Your task to perform on an android device: What's the weather going to be tomorrow? Image 0: 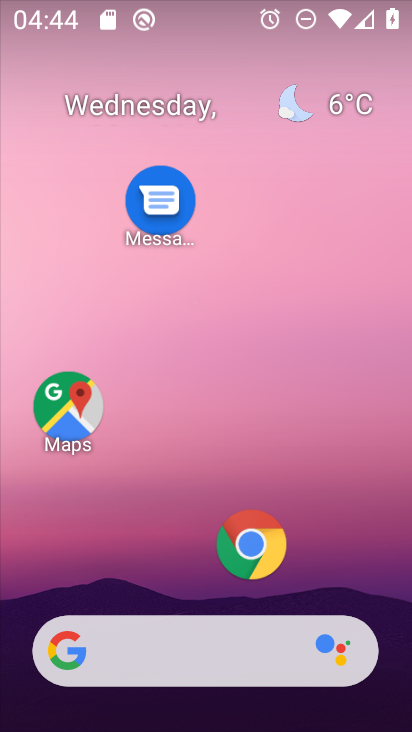
Step 0: click (152, 641)
Your task to perform on an android device: What's the weather going to be tomorrow? Image 1: 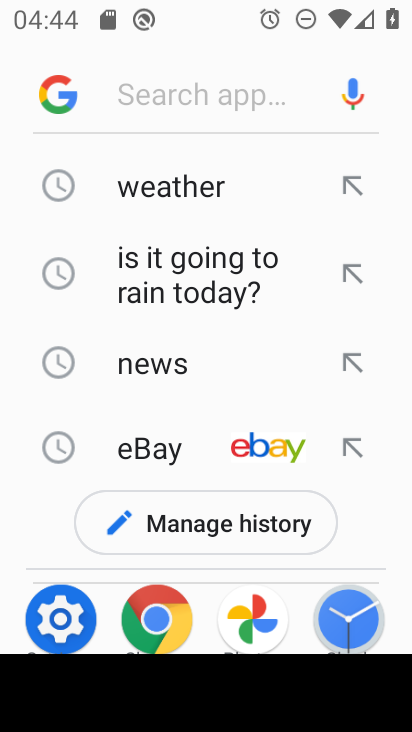
Step 1: type "what's the weather going to be tomorrow"
Your task to perform on an android device: What's the weather going to be tomorrow? Image 2: 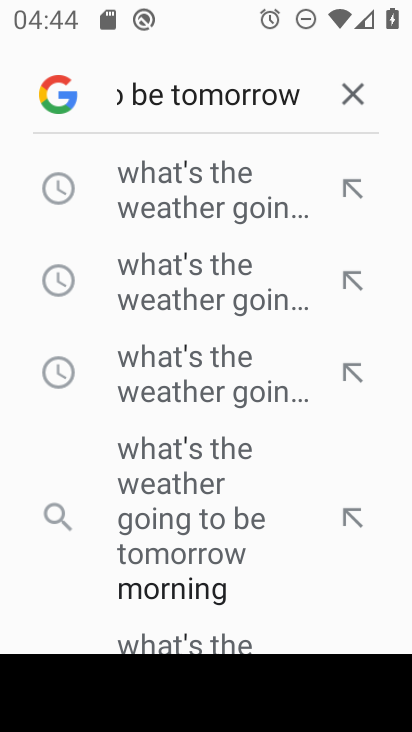
Step 2: click (164, 209)
Your task to perform on an android device: What's the weather going to be tomorrow? Image 3: 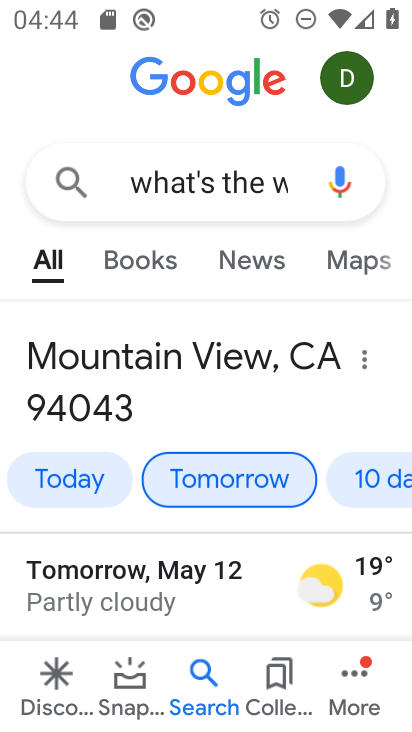
Step 3: task complete